Your task to perform on an android device: Search for a cheap bike on Walmart Image 0: 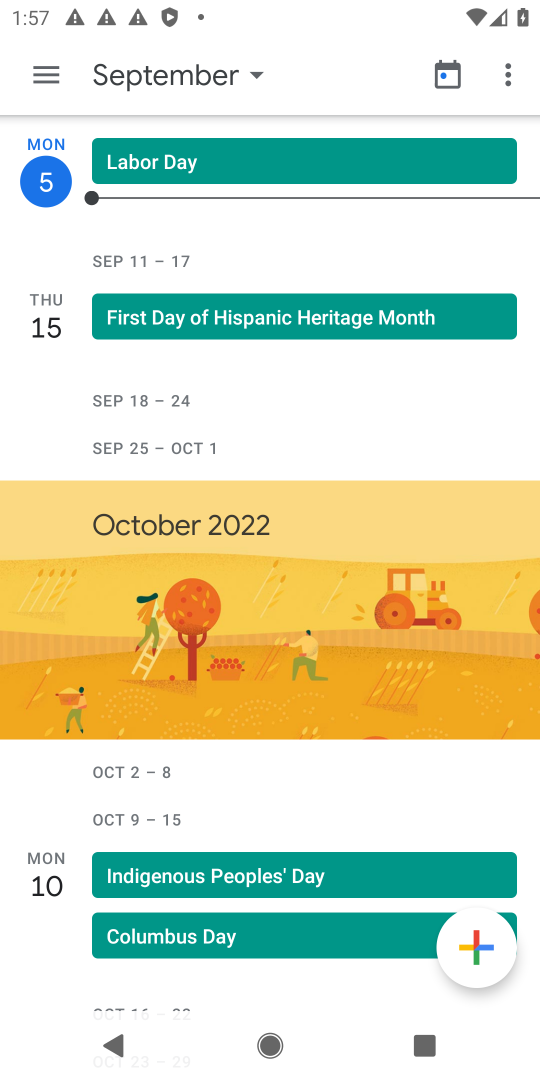
Step 0: press home button
Your task to perform on an android device: Search for a cheap bike on Walmart Image 1: 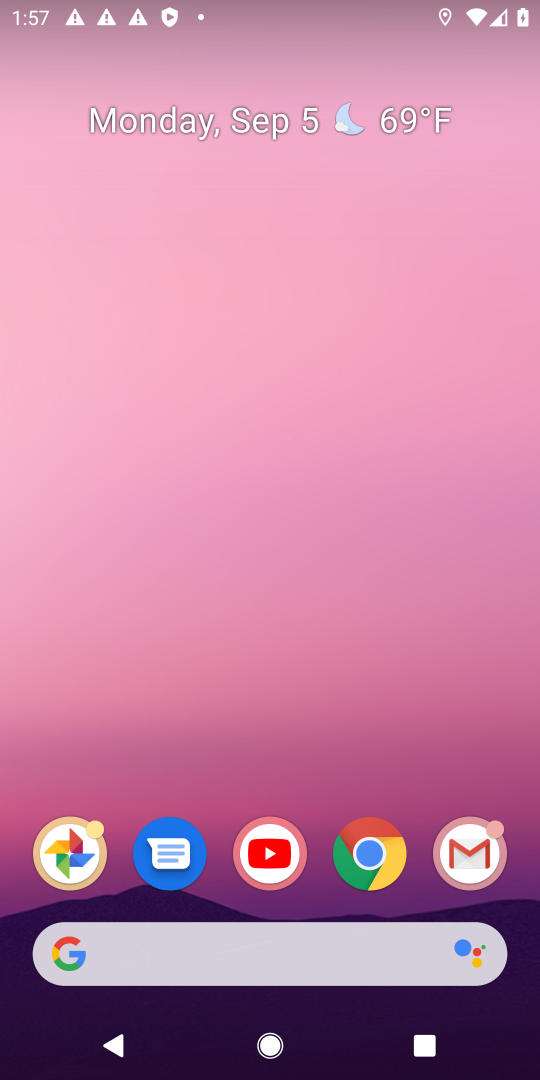
Step 1: drag from (325, 809) to (424, 214)
Your task to perform on an android device: Search for a cheap bike on Walmart Image 2: 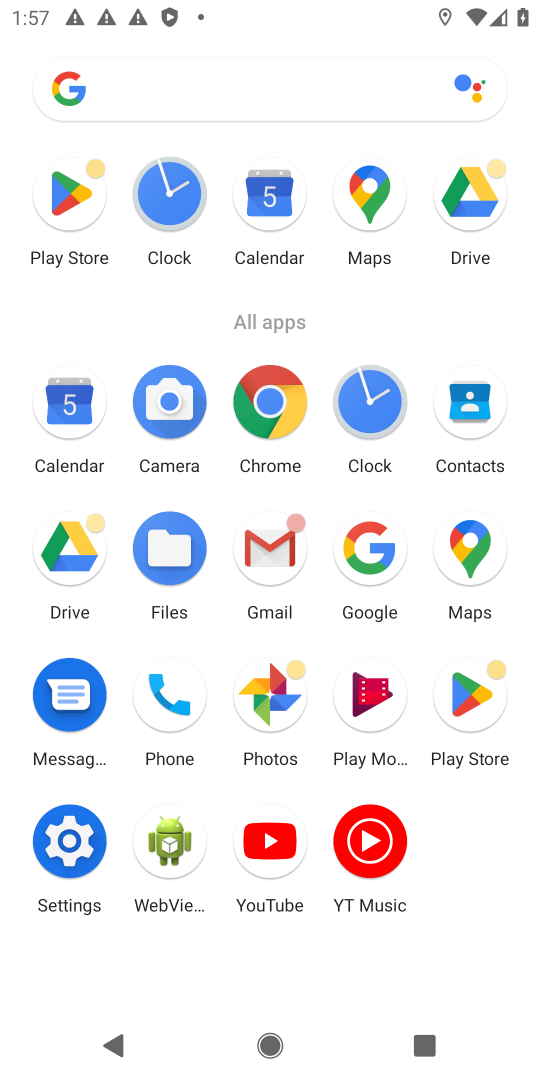
Step 2: click (374, 562)
Your task to perform on an android device: Search for a cheap bike on Walmart Image 3: 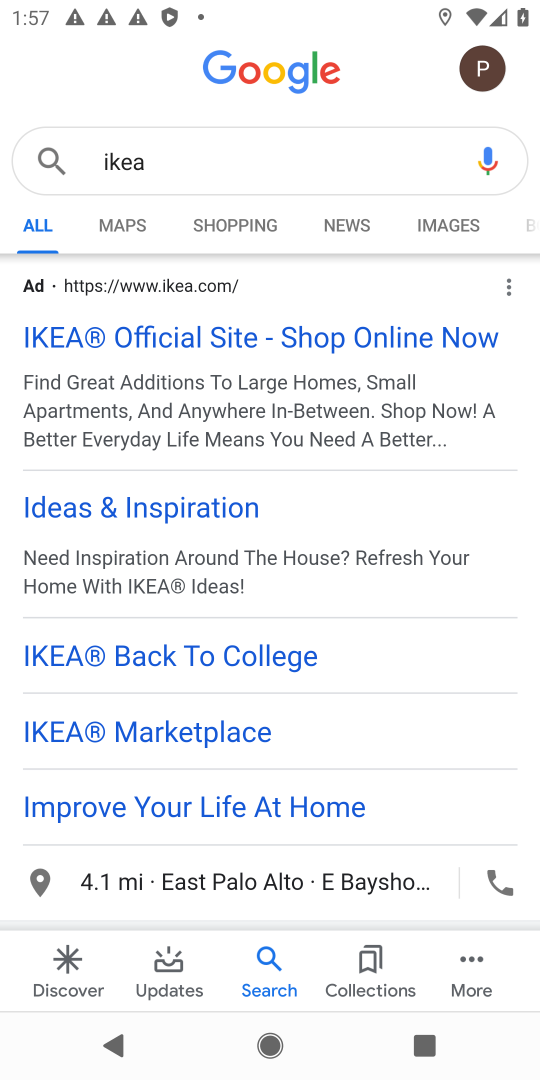
Step 3: click (197, 170)
Your task to perform on an android device: Search for a cheap bike on Walmart Image 4: 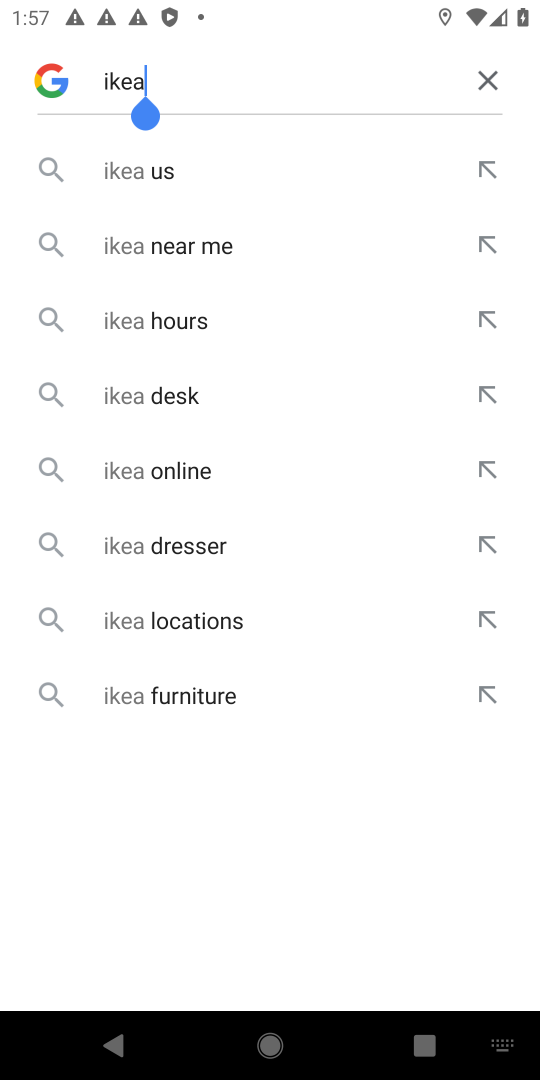
Step 4: click (488, 80)
Your task to perform on an android device: Search for a cheap bike on Walmart Image 5: 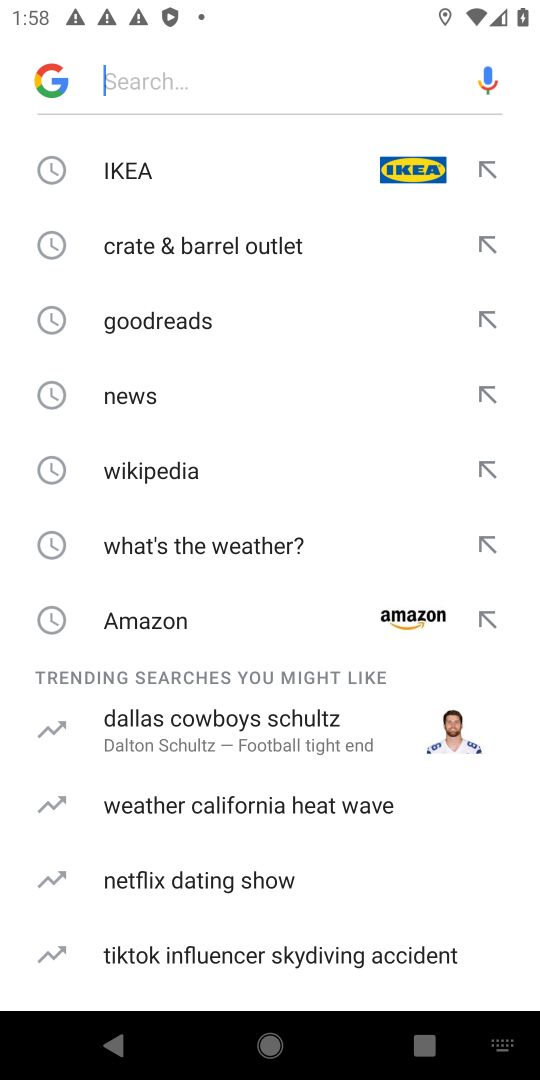
Step 5: type "Walmart"
Your task to perform on an android device: Search for a cheap bike on Walmart Image 6: 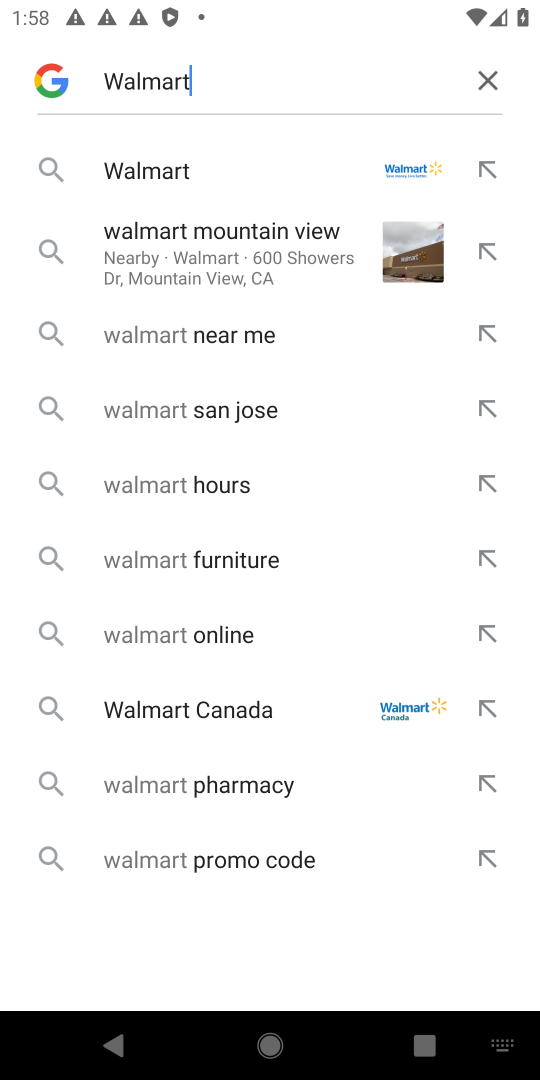
Step 6: click (383, 163)
Your task to perform on an android device: Search for a cheap bike on Walmart Image 7: 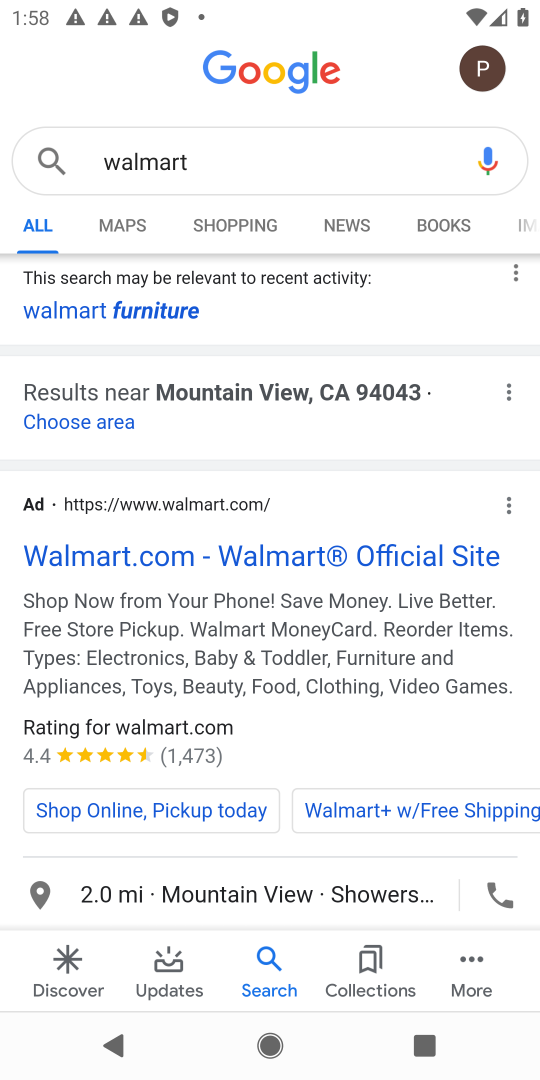
Step 7: click (90, 561)
Your task to perform on an android device: Search for a cheap bike on Walmart Image 8: 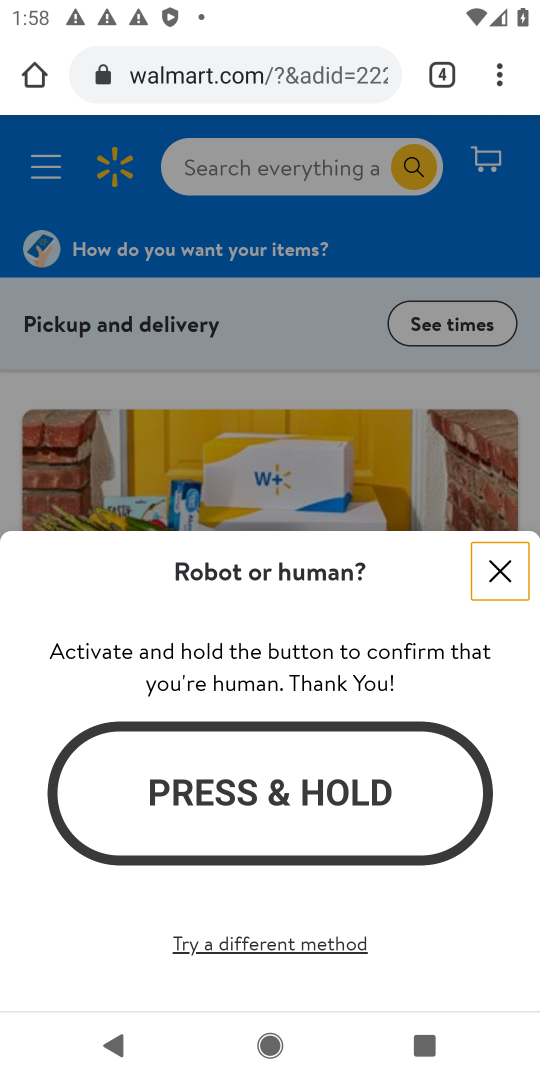
Step 8: click (241, 185)
Your task to perform on an android device: Search for a cheap bike on Walmart Image 9: 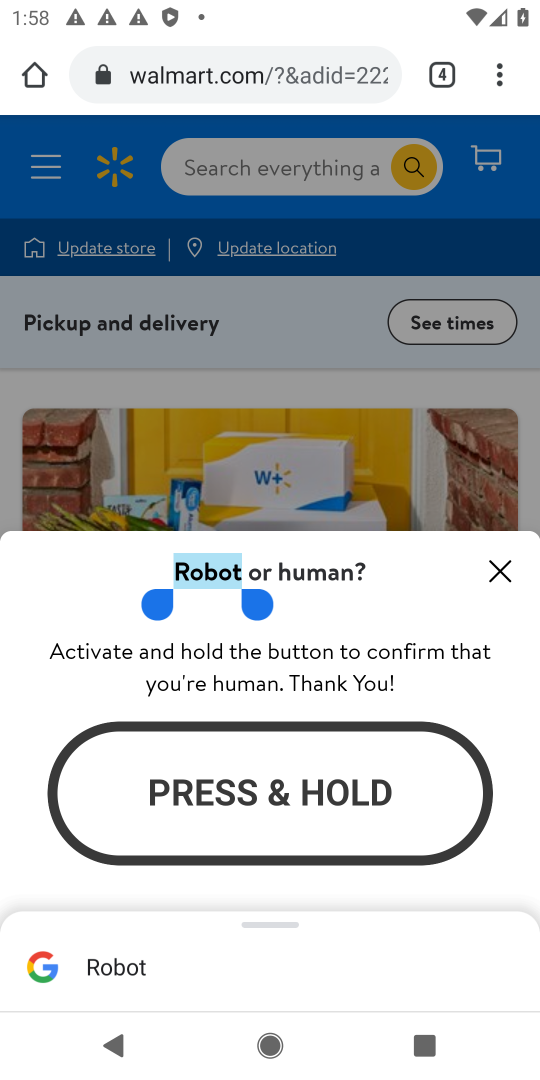
Step 9: click (284, 184)
Your task to perform on an android device: Search for a cheap bike on Walmart Image 10: 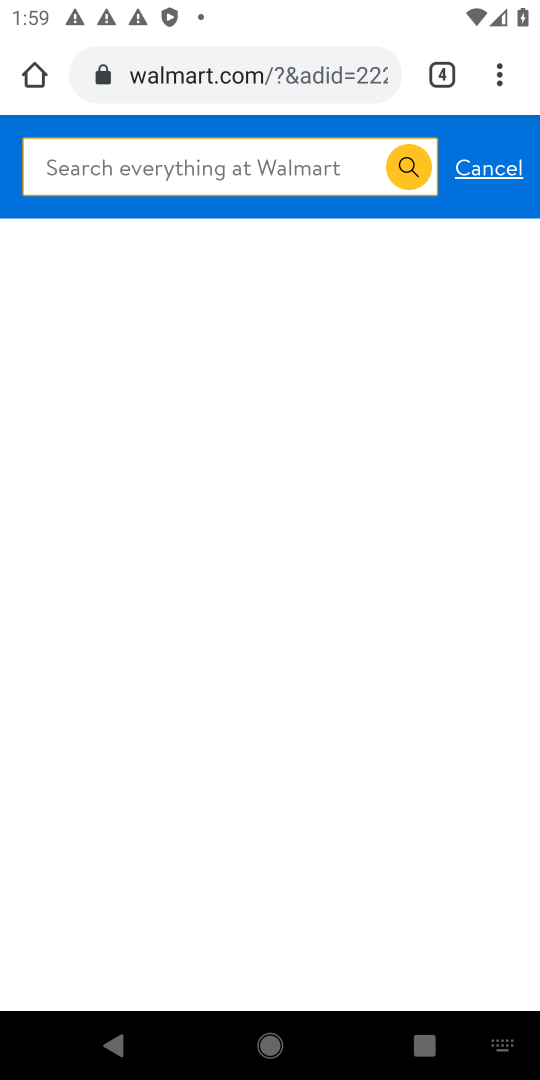
Step 10: type "cheap bike"
Your task to perform on an android device: Search for a cheap bike on Walmart Image 11: 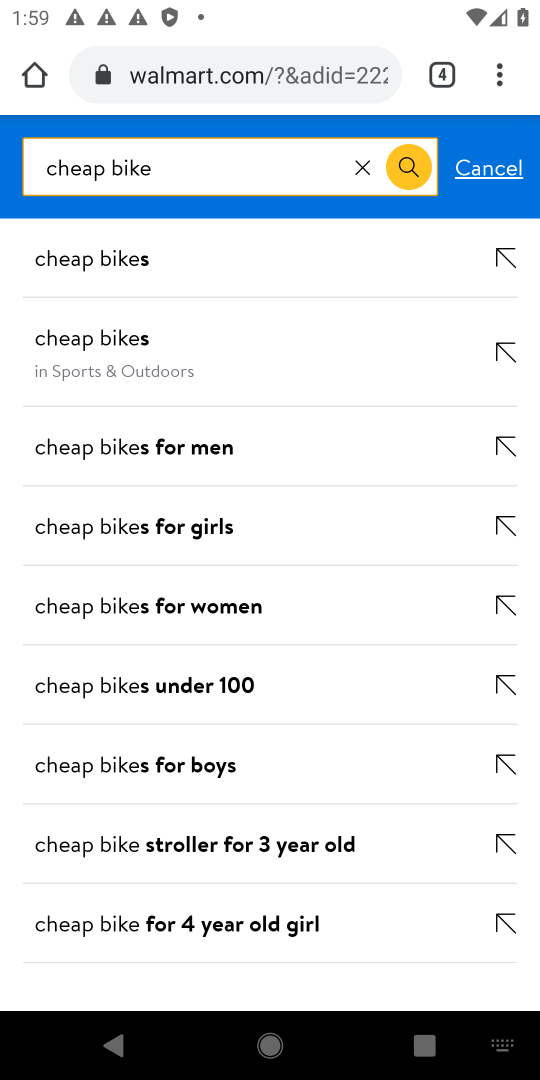
Step 11: click (120, 335)
Your task to perform on an android device: Search for a cheap bike on Walmart Image 12: 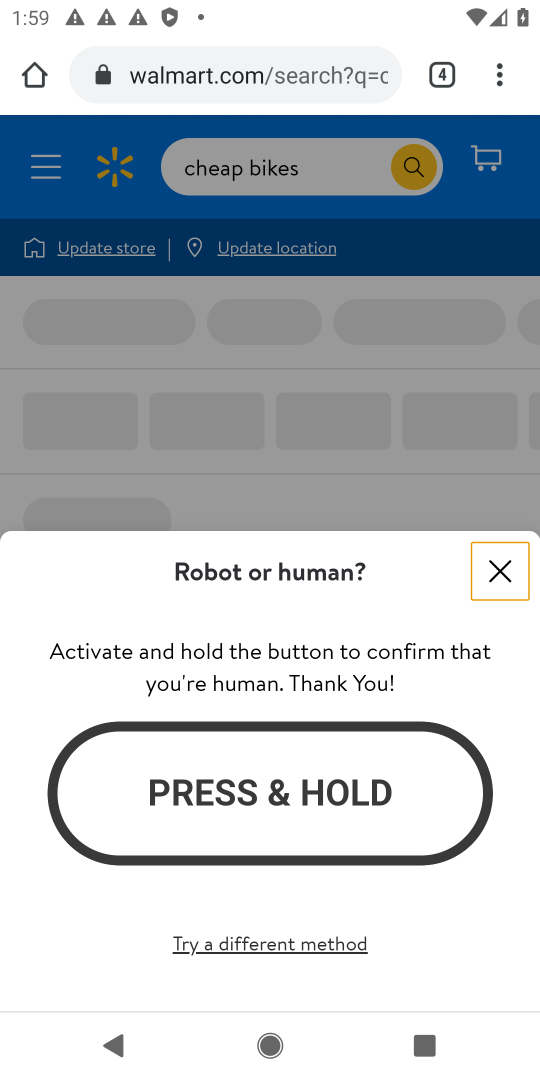
Step 12: click (509, 567)
Your task to perform on an android device: Search for a cheap bike on Walmart Image 13: 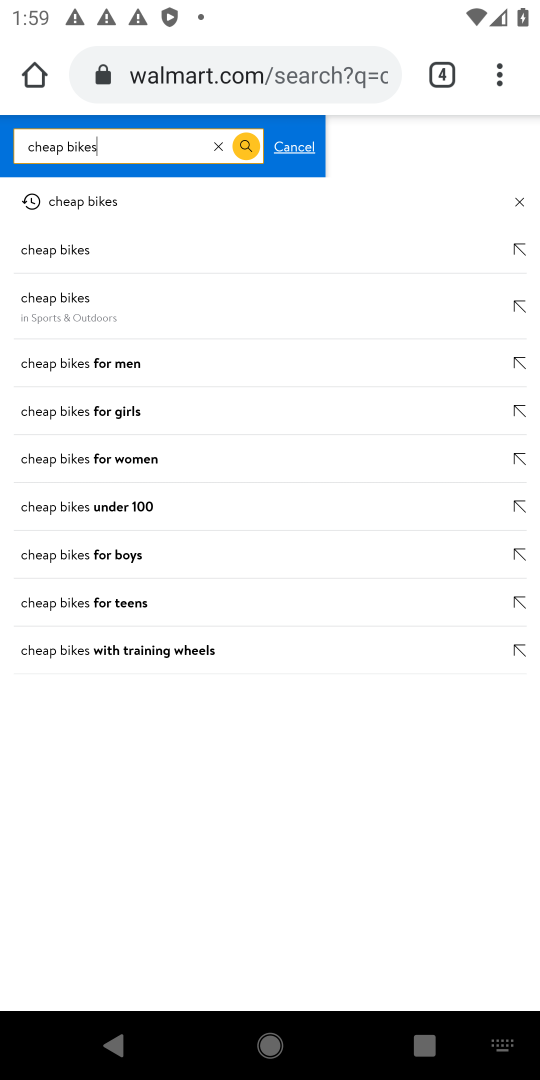
Step 13: click (46, 259)
Your task to perform on an android device: Search for a cheap bike on Walmart Image 14: 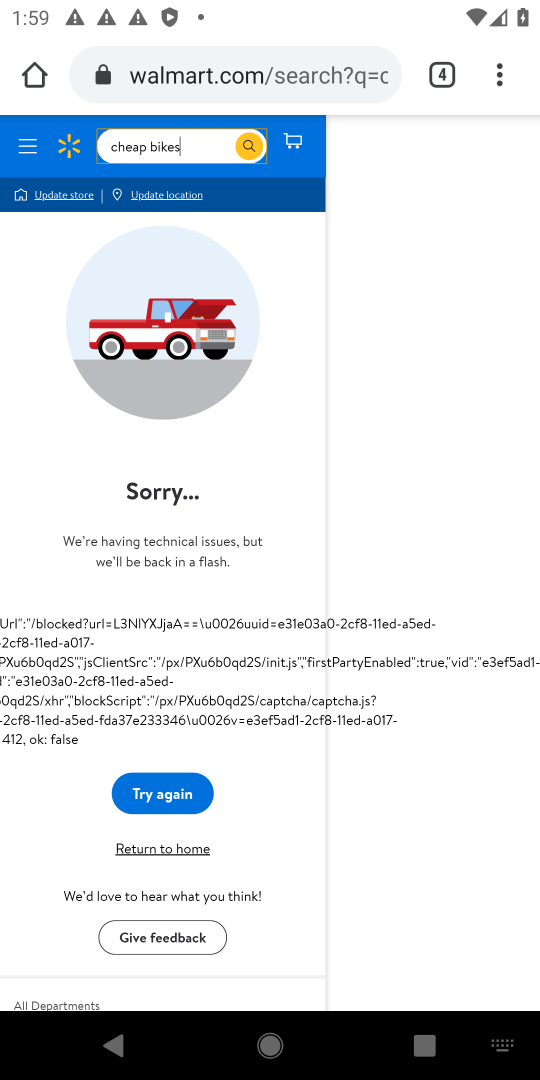
Step 14: task complete